Your task to perform on an android device: move a message to another label in the gmail app Image 0: 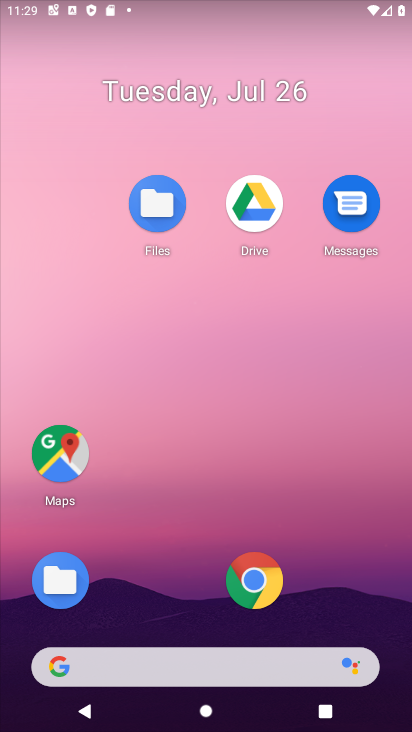
Step 0: drag from (171, 626) to (71, 94)
Your task to perform on an android device: move a message to another label in the gmail app Image 1: 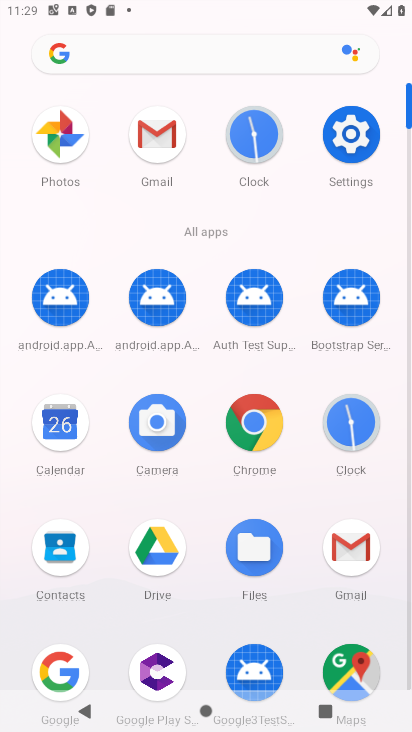
Step 1: click (135, 152)
Your task to perform on an android device: move a message to another label in the gmail app Image 2: 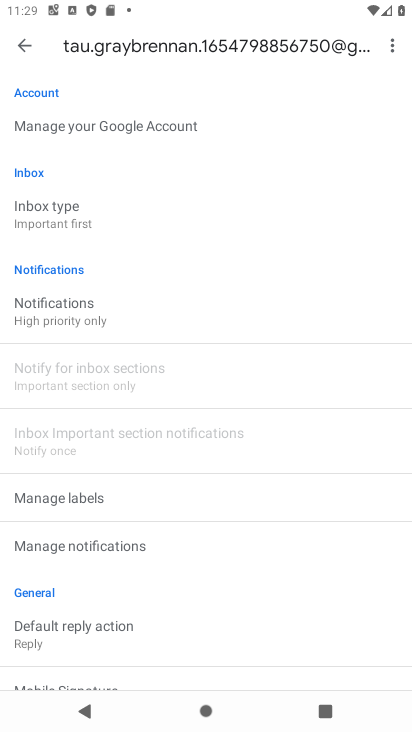
Step 2: click (135, 152)
Your task to perform on an android device: move a message to another label in the gmail app Image 3: 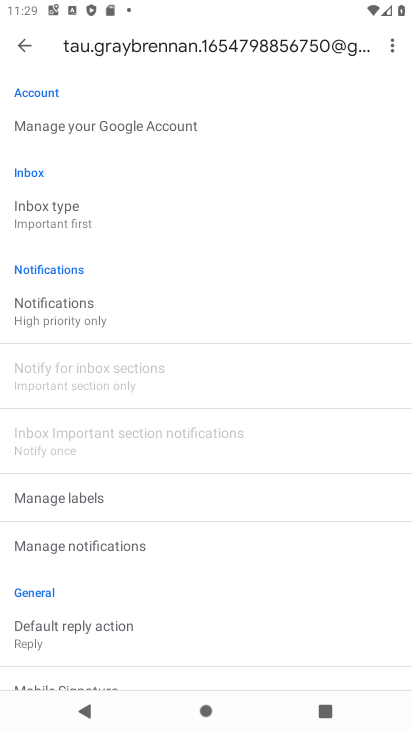
Step 3: click (14, 46)
Your task to perform on an android device: move a message to another label in the gmail app Image 4: 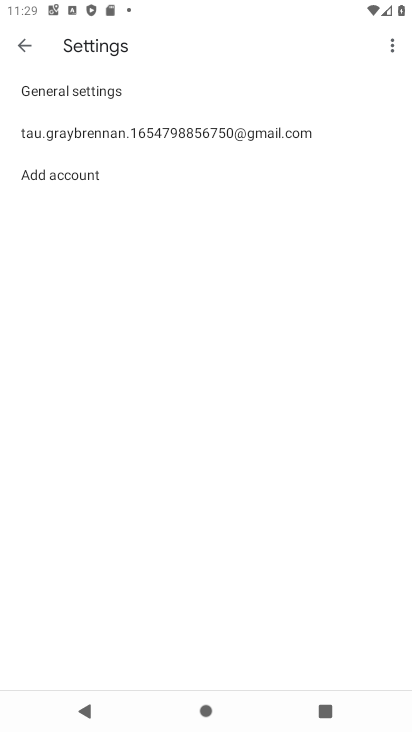
Step 4: click (14, 46)
Your task to perform on an android device: move a message to another label in the gmail app Image 5: 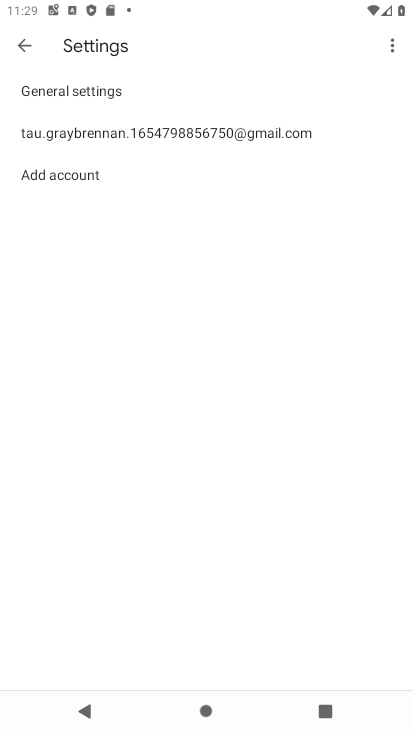
Step 5: click (14, 46)
Your task to perform on an android device: move a message to another label in the gmail app Image 6: 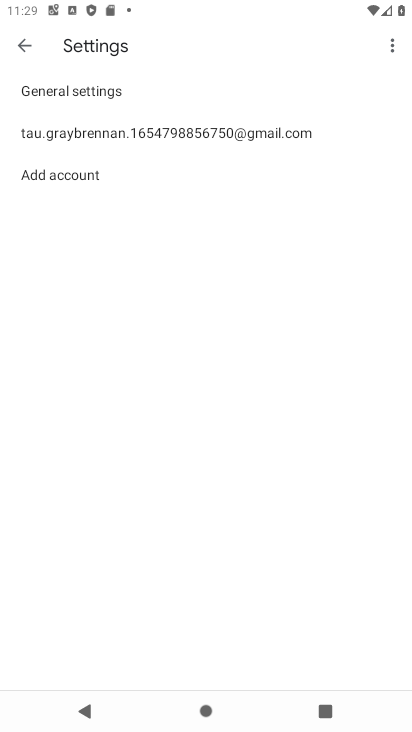
Step 6: click (14, 46)
Your task to perform on an android device: move a message to another label in the gmail app Image 7: 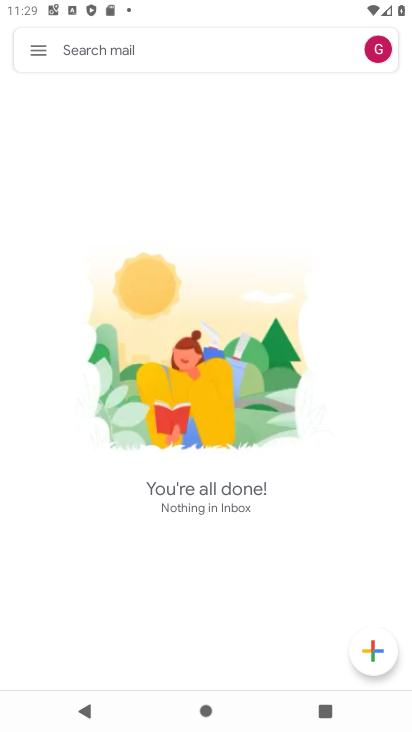
Step 7: task complete